Your task to perform on an android device: check android version Image 0: 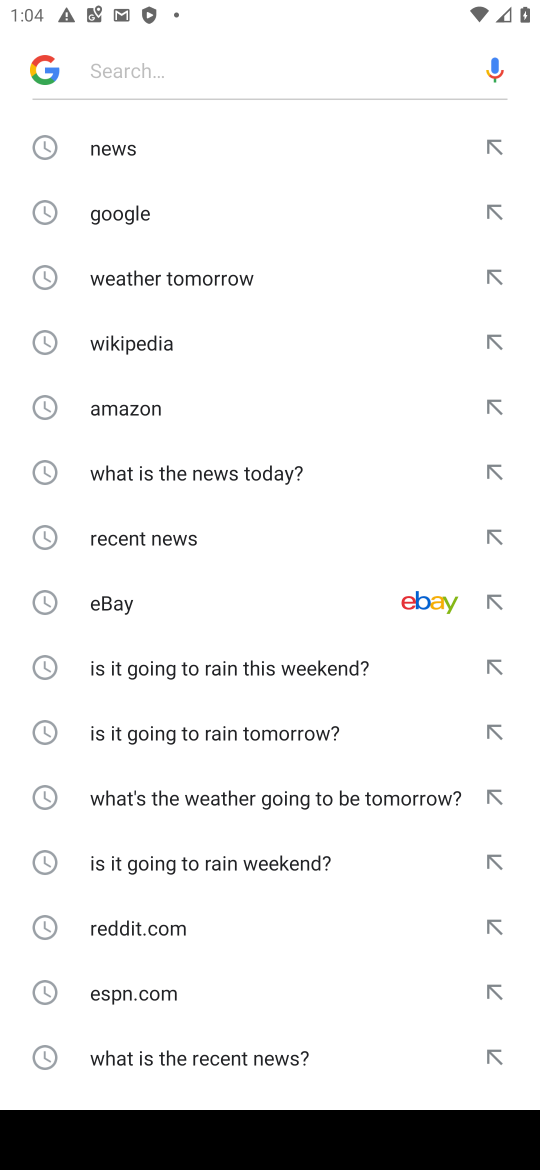
Step 0: task complete